Your task to perform on an android device: turn on translation in the chrome app Image 0: 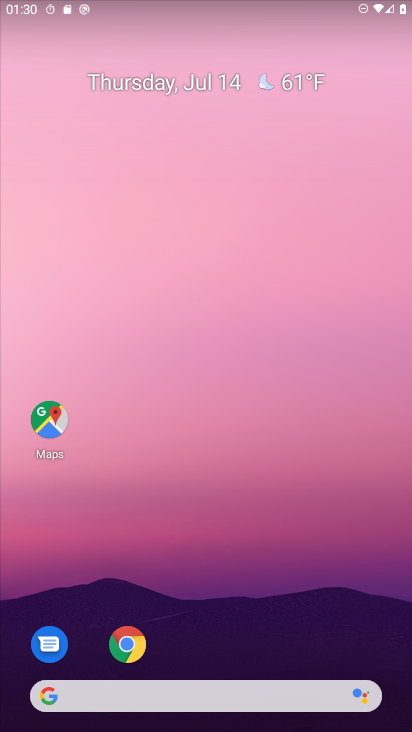
Step 0: drag from (334, 523) to (385, 128)
Your task to perform on an android device: turn on translation in the chrome app Image 1: 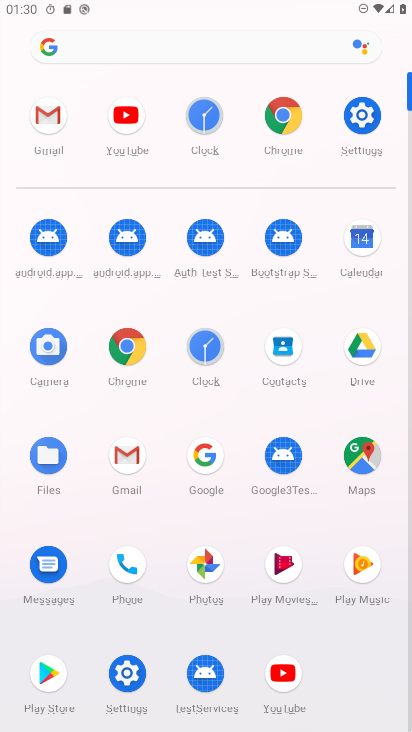
Step 1: click (120, 346)
Your task to perform on an android device: turn on translation in the chrome app Image 2: 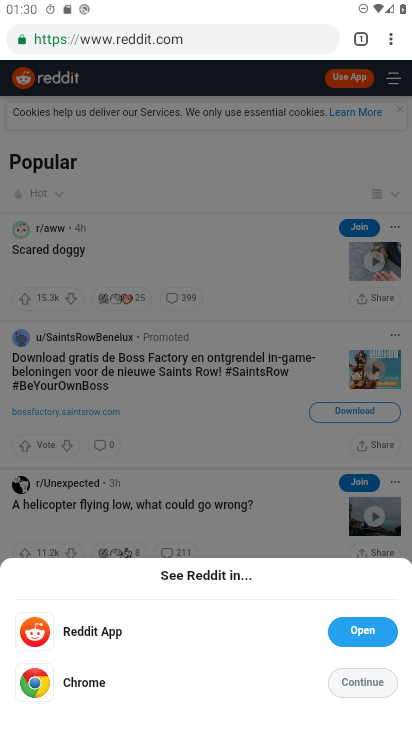
Step 2: drag from (398, 32) to (286, 466)
Your task to perform on an android device: turn on translation in the chrome app Image 3: 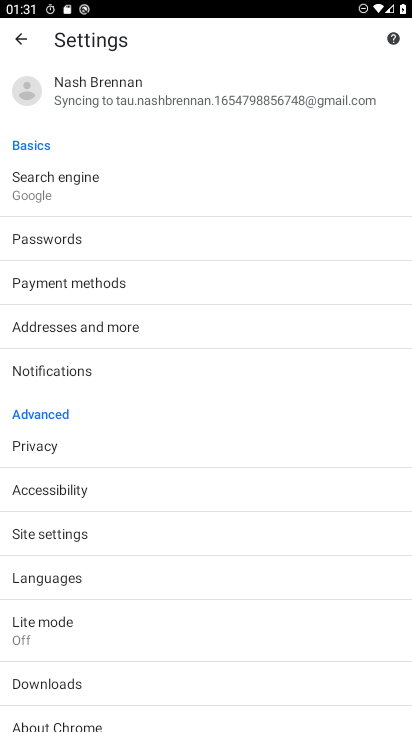
Step 3: click (64, 584)
Your task to perform on an android device: turn on translation in the chrome app Image 4: 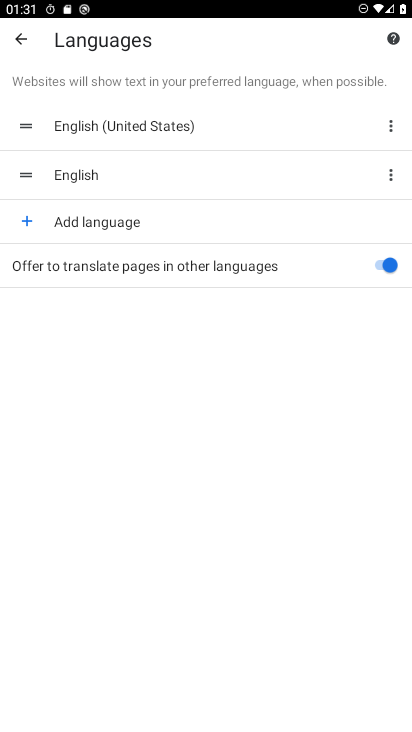
Step 4: task complete